Your task to perform on an android device: toggle show notifications on the lock screen Image 0: 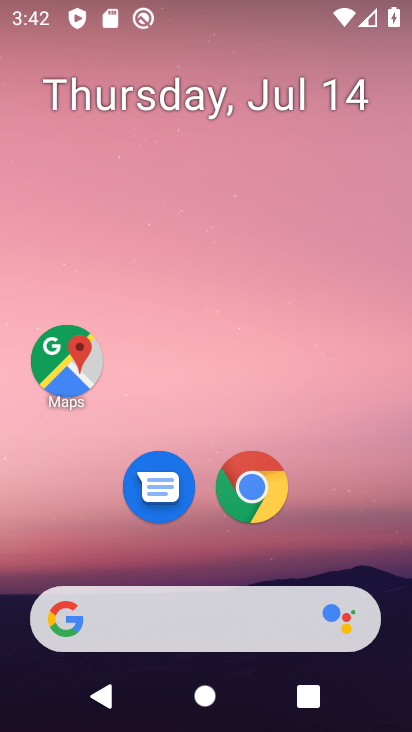
Step 0: drag from (196, 530) to (275, 160)
Your task to perform on an android device: toggle show notifications on the lock screen Image 1: 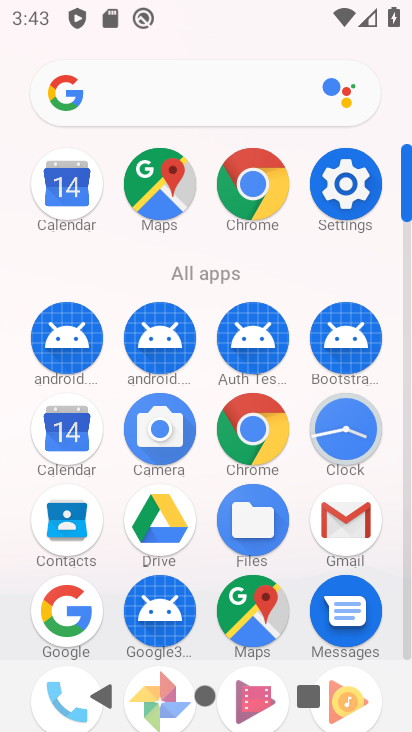
Step 1: click (347, 218)
Your task to perform on an android device: toggle show notifications on the lock screen Image 2: 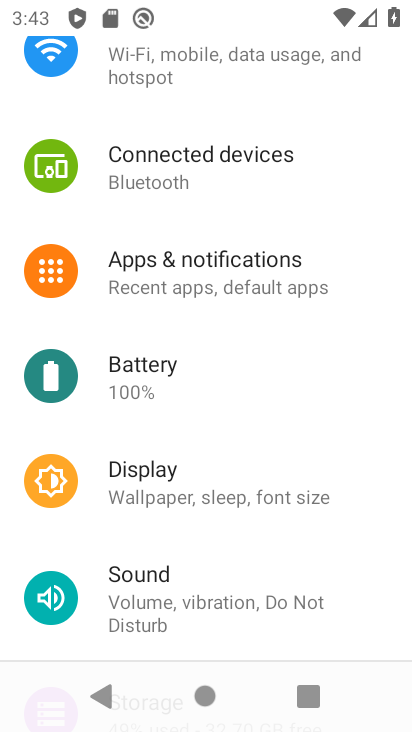
Step 2: click (245, 286)
Your task to perform on an android device: toggle show notifications on the lock screen Image 3: 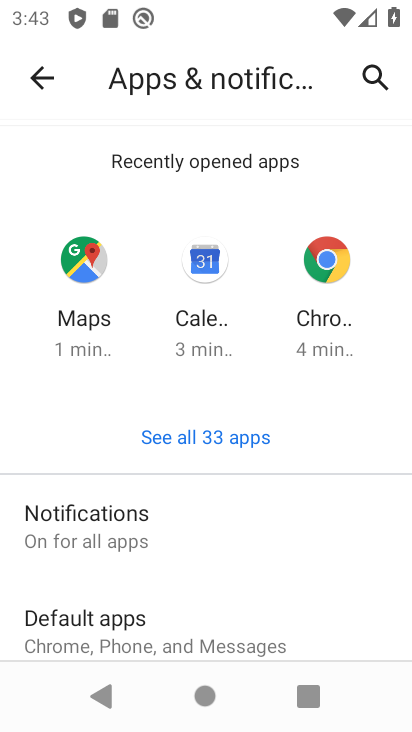
Step 3: click (194, 521)
Your task to perform on an android device: toggle show notifications on the lock screen Image 4: 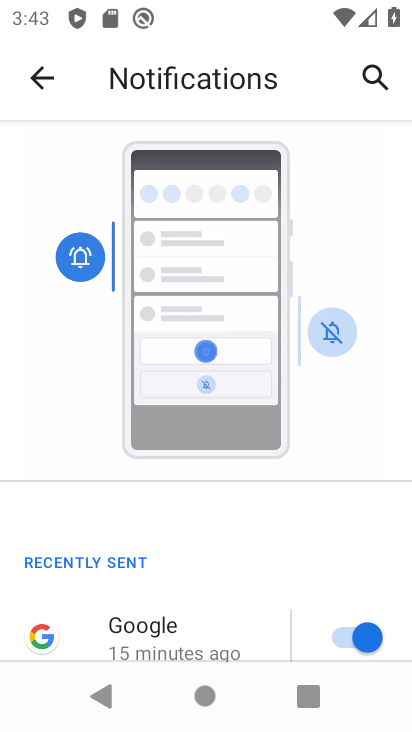
Step 4: drag from (203, 575) to (260, 211)
Your task to perform on an android device: toggle show notifications on the lock screen Image 5: 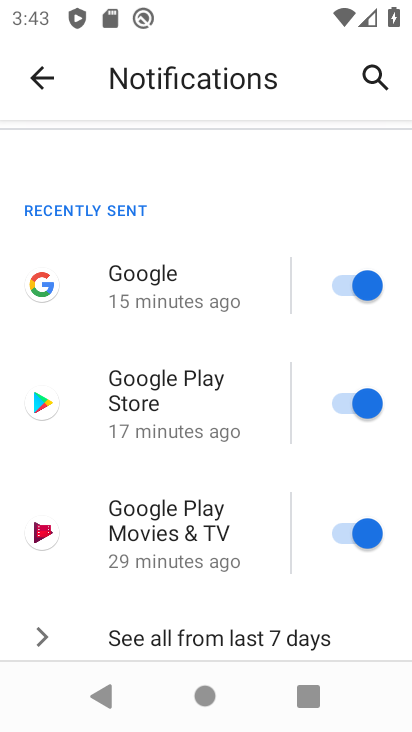
Step 5: drag from (218, 557) to (289, 183)
Your task to perform on an android device: toggle show notifications on the lock screen Image 6: 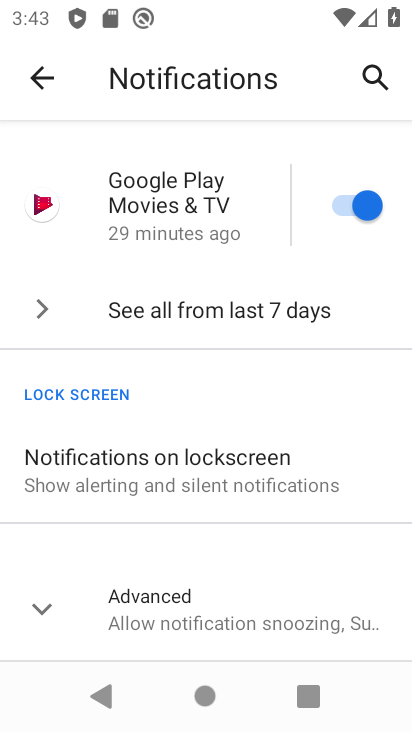
Step 6: click (212, 475)
Your task to perform on an android device: toggle show notifications on the lock screen Image 7: 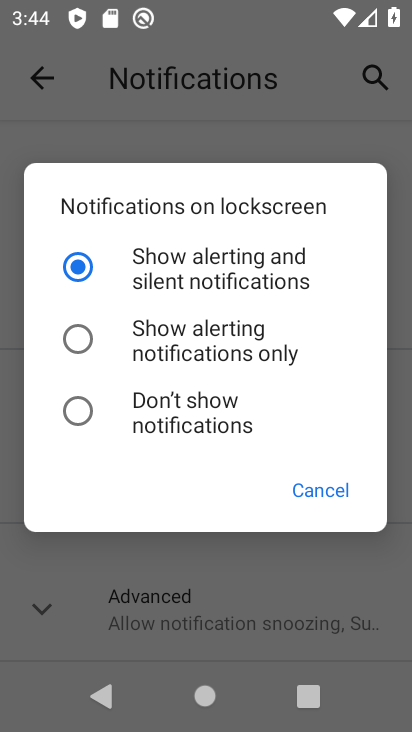
Step 7: click (210, 420)
Your task to perform on an android device: toggle show notifications on the lock screen Image 8: 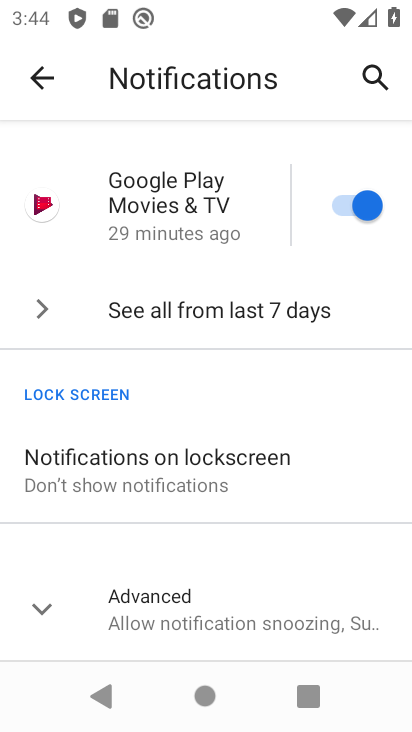
Step 8: task complete